Your task to perform on an android device: Open the web browser Image 0: 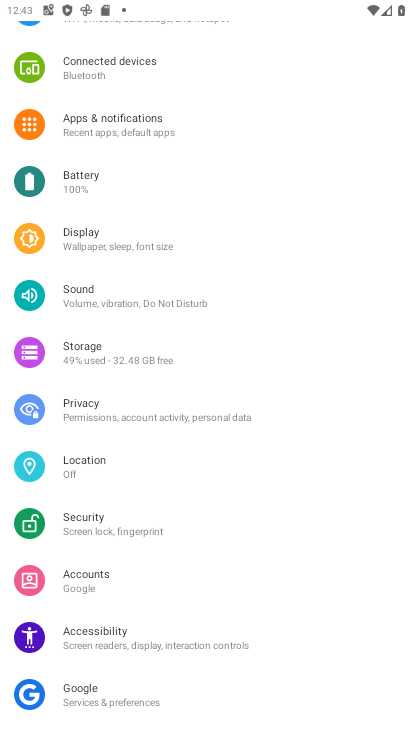
Step 0: press home button
Your task to perform on an android device: Open the web browser Image 1: 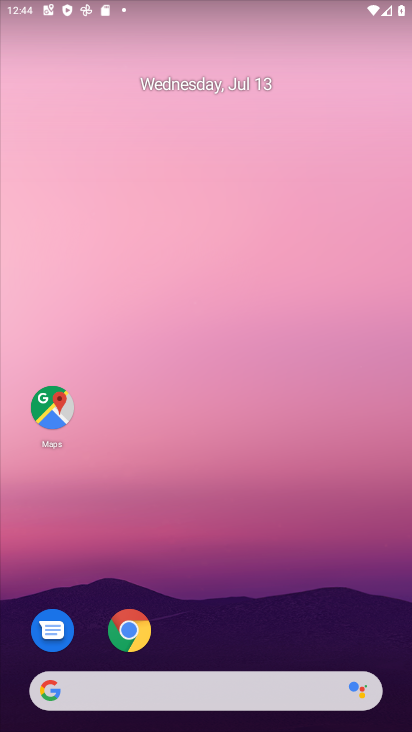
Step 1: drag from (356, 649) to (251, 67)
Your task to perform on an android device: Open the web browser Image 2: 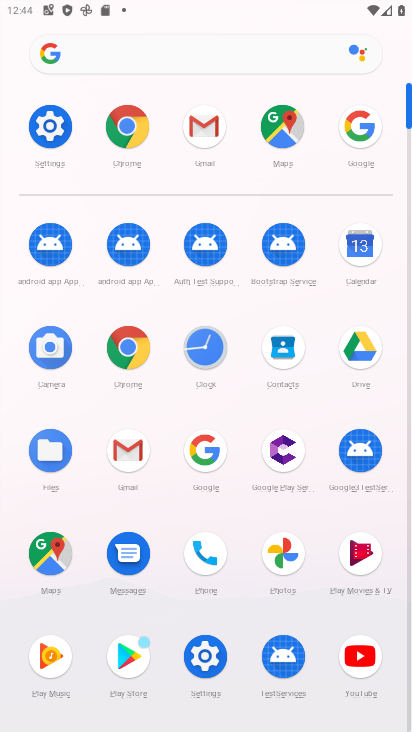
Step 2: click (201, 462)
Your task to perform on an android device: Open the web browser Image 3: 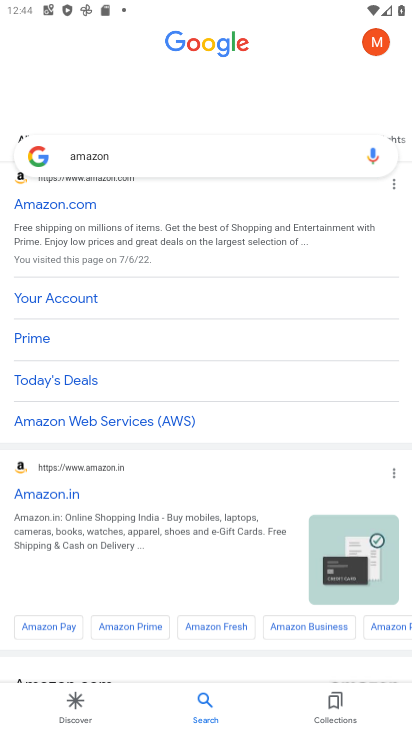
Step 3: press back button
Your task to perform on an android device: Open the web browser Image 4: 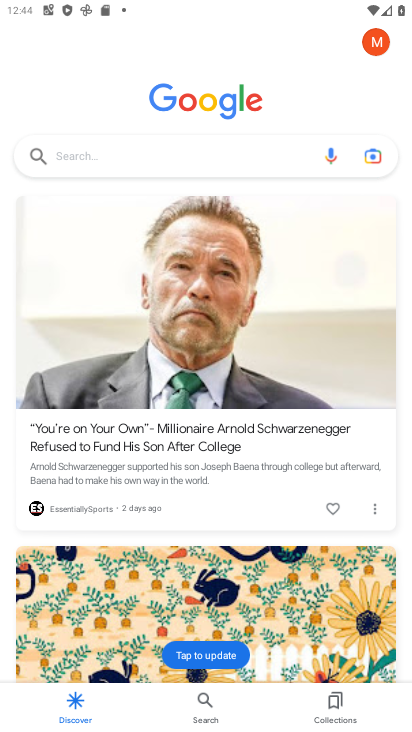
Step 4: click (119, 154)
Your task to perform on an android device: Open the web browser Image 5: 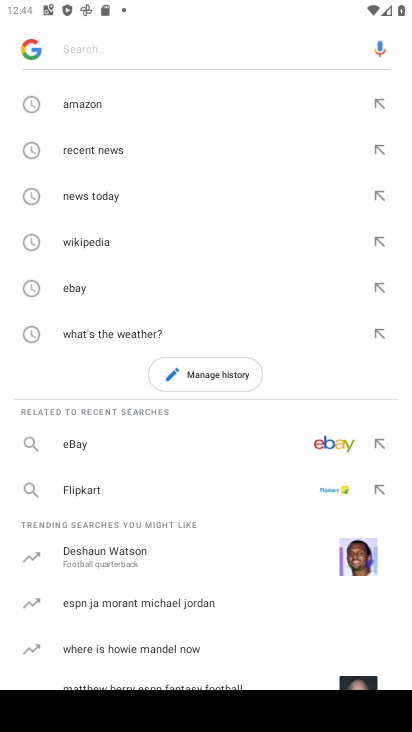
Step 5: type "web browser"
Your task to perform on an android device: Open the web browser Image 6: 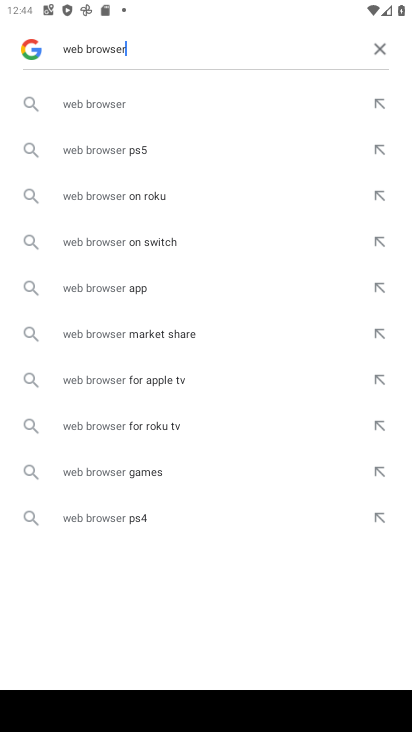
Step 6: click (107, 108)
Your task to perform on an android device: Open the web browser Image 7: 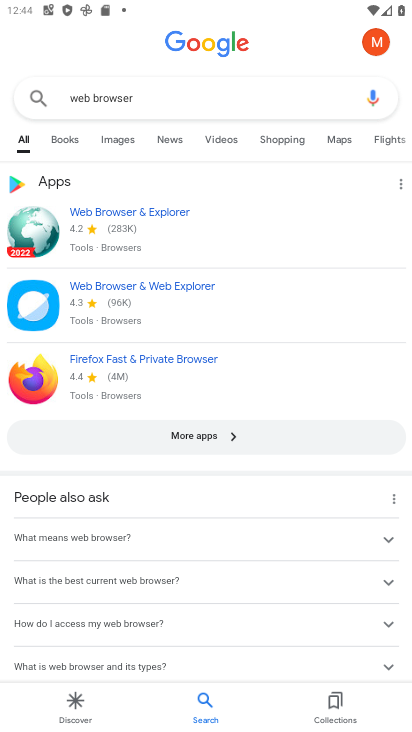
Step 7: task complete